Your task to perform on an android device: turn on showing notifications on the lock screen Image 0: 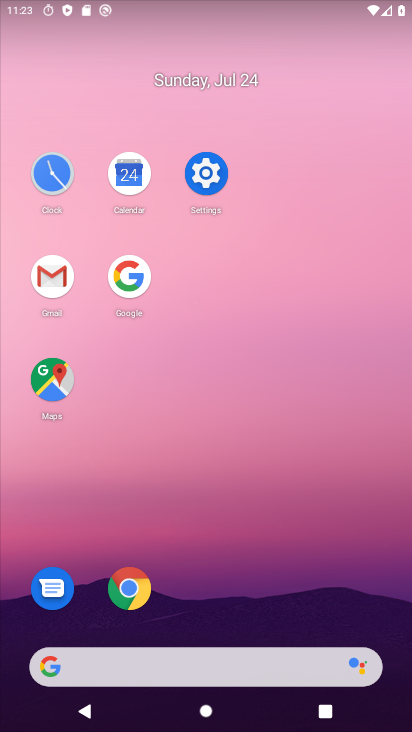
Step 0: click (206, 190)
Your task to perform on an android device: turn on showing notifications on the lock screen Image 1: 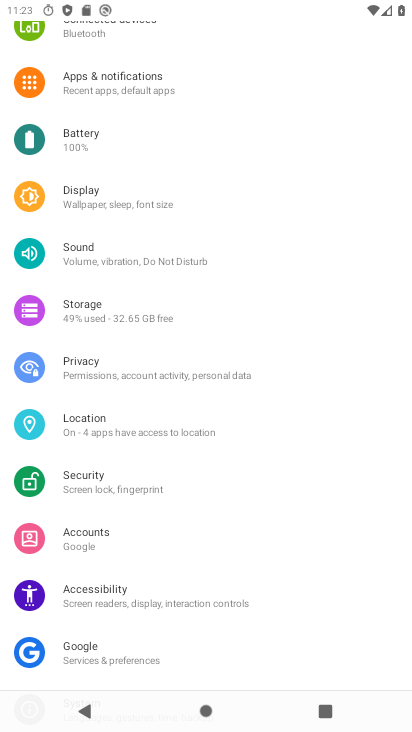
Step 1: click (257, 96)
Your task to perform on an android device: turn on showing notifications on the lock screen Image 2: 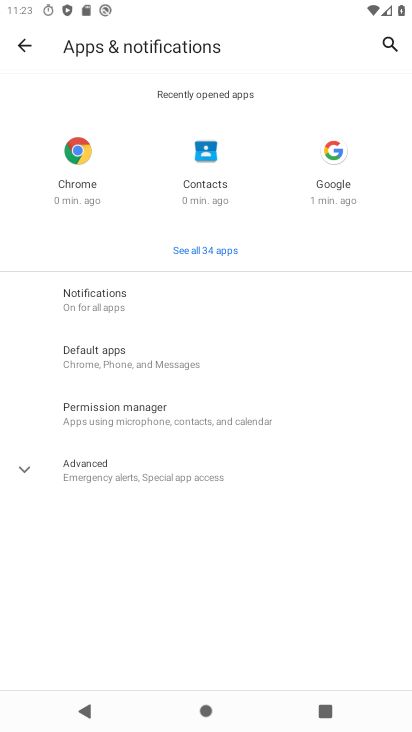
Step 2: click (238, 284)
Your task to perform on an android device: turn on showing notifications on the lock screen Image 3: 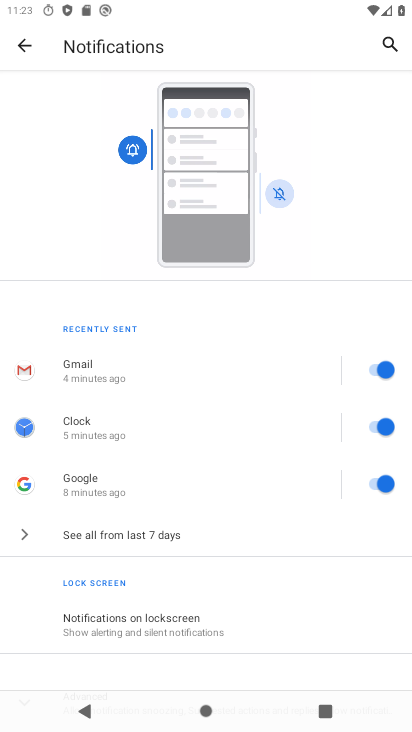
Step 3: click (201, 640)
Your task to perform on an android device: turn on showing notifications on the lock screen Image 4: 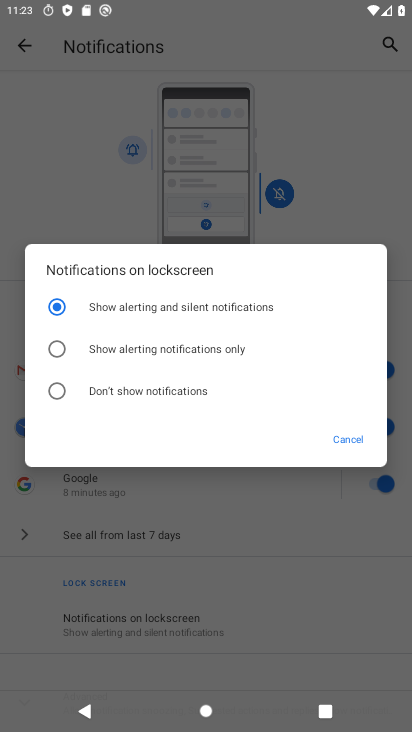
Step 4: task complete